Your task to perform on an android device: Go to CNN.com Image 0: 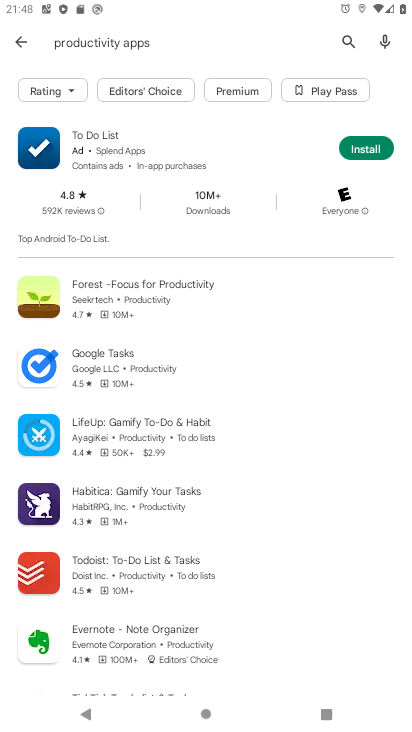
Step 0: press home button
Your task to perform on an android device: Go to CNN.com Image 1: 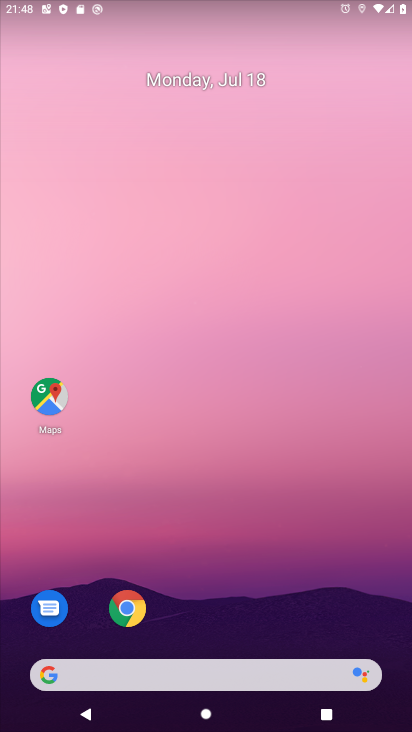
Step 1: click (129, 683)
Your task to perform on an android device: Go to CNN.com Image 2: 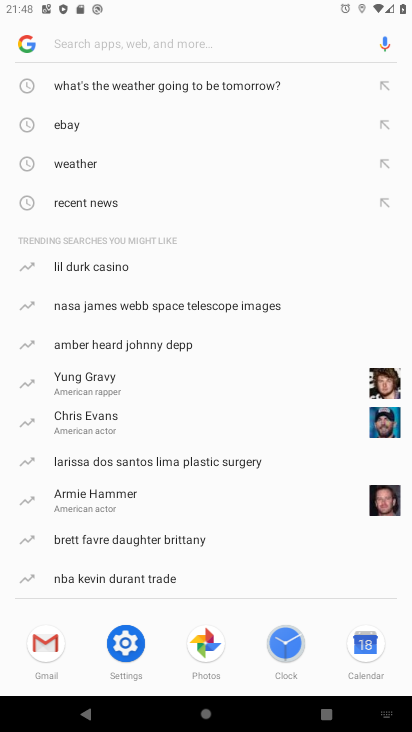
Step 2: type "CNN.com"
Your task to perform on an android device: Go to CNN.com Image 3: 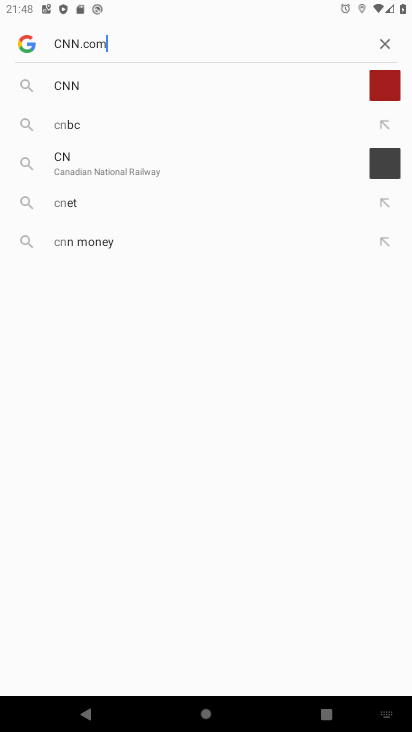
Step 3: type ""
Your task to perform on an android device: Go to CNN.com Image 4: 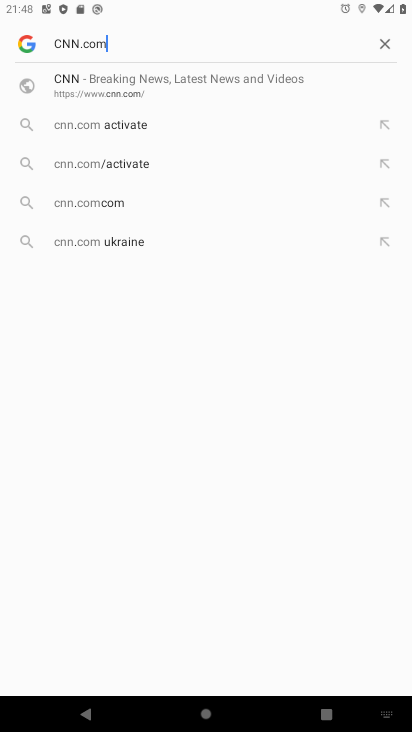
Step 4: click (84, 87)
Your task to perform on an android device: Go to CNN.com Image 5: 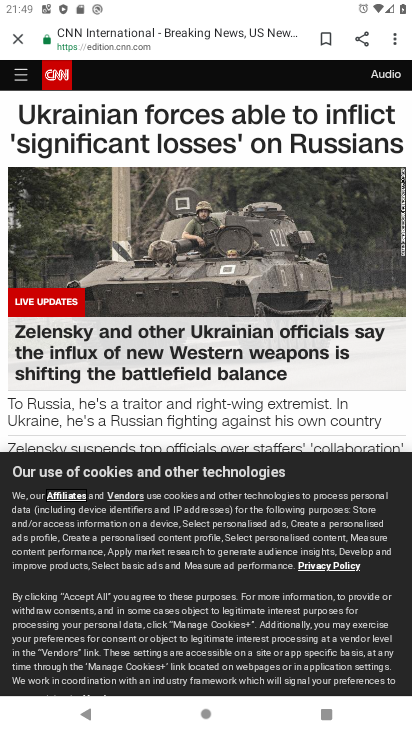
Step 5: task complete